Your task to perform on an android device: See recent photos Image 0: 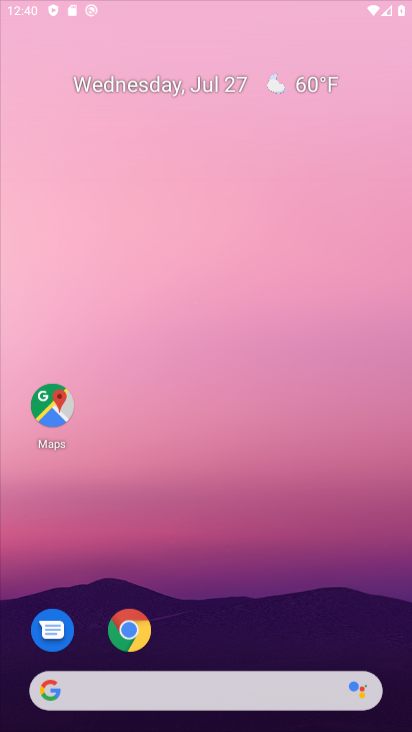
Step 0: press home button
Your task to perform on an android device: See recent photos Image 1: 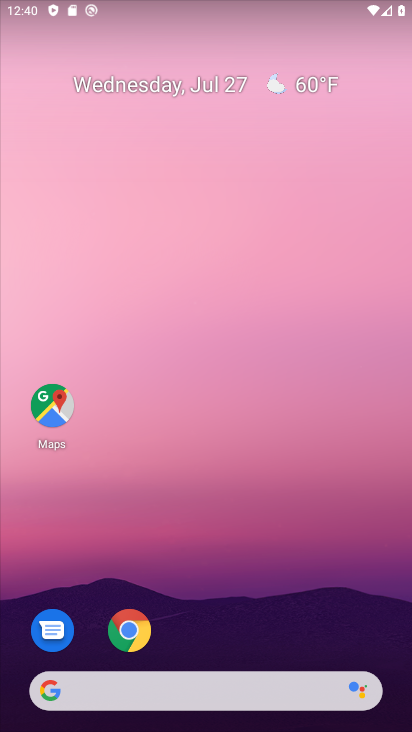
Step 1: drag from (232, 646) to (236, 69)
Your task to perform on an android device: See recent photos Image 2: 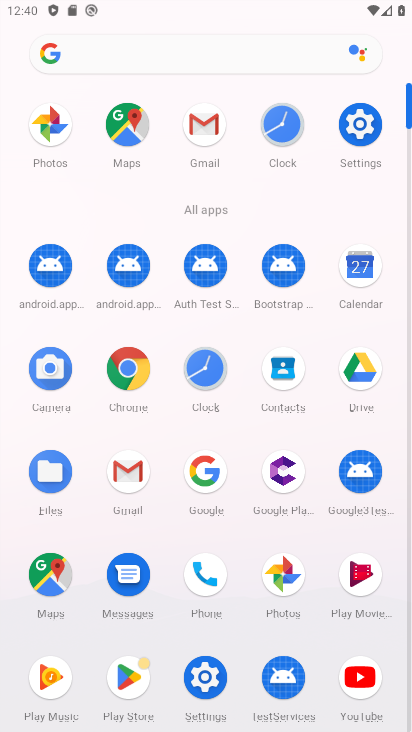
Step 2: click (51, 123)
Your task to perform on an android device: See recent photos Image 3: 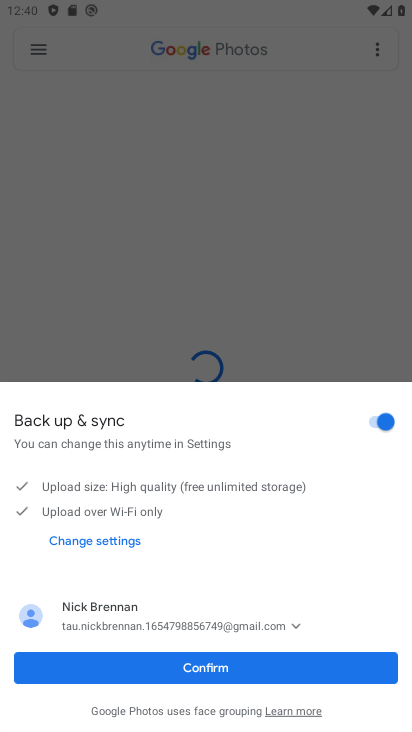
Step 3: click (254, 658)
Your task to perform on an android device: See recent photos Image 4: 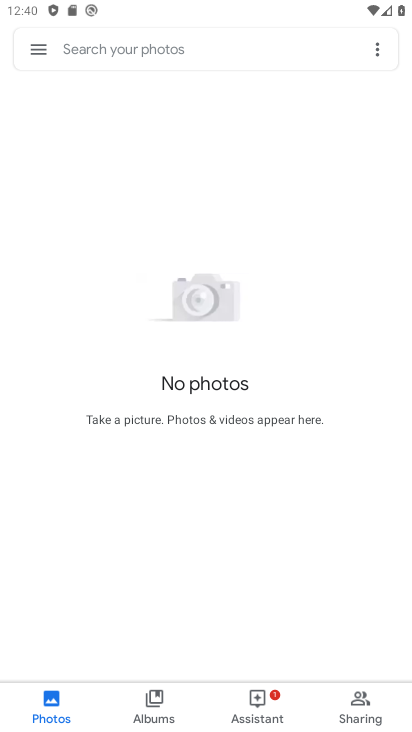
Step 4: task complete